Your task to perform on an android device: open app "Viber Messenger" (install if not already installed) Image 0: 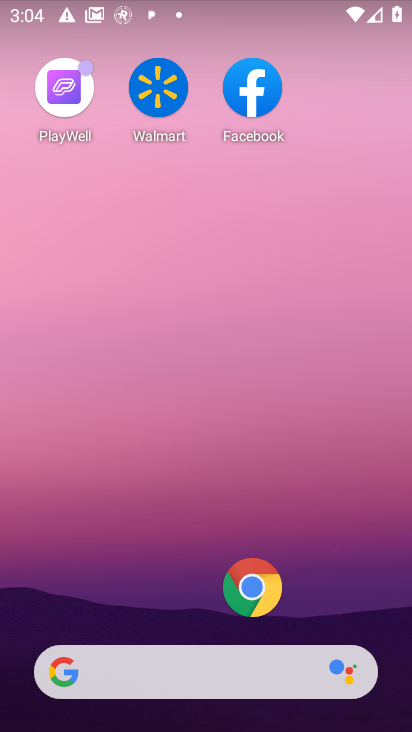
Step 0: drag from (161, 603) to (179, 228)
Your task to perform on an android device: open app "Viber Messenger" (install if not already installed) Image 1: 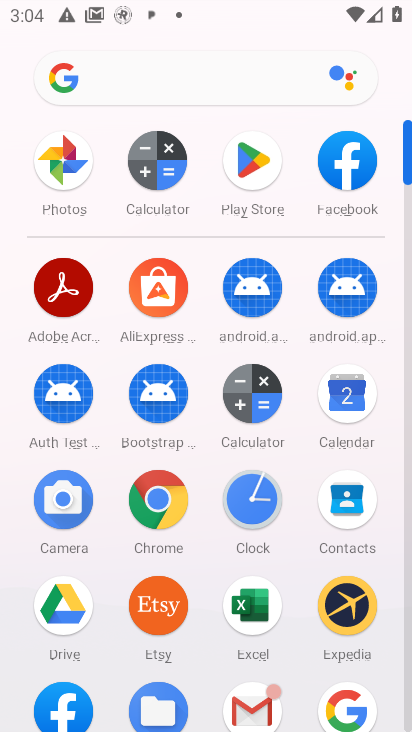
Step 1: click (245, 184)
Your task to perform on an android device: open app "Viber Messenger" (install if not already installed) Image 2: 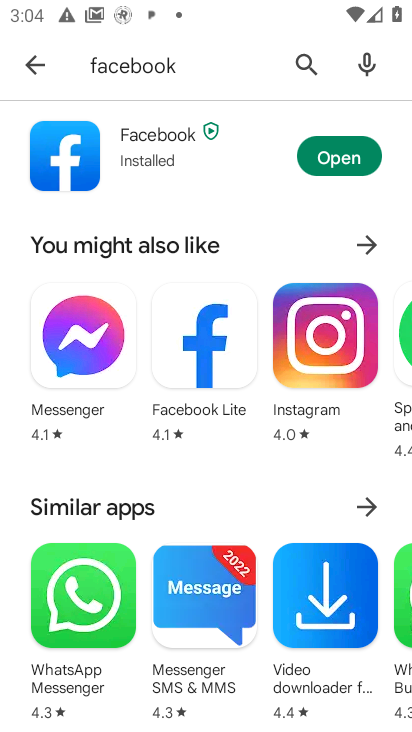
Step 2: click (313, 64)
Your task to perform on an android device: open app "Viber Messenger" (install if not already installed) Image 3: 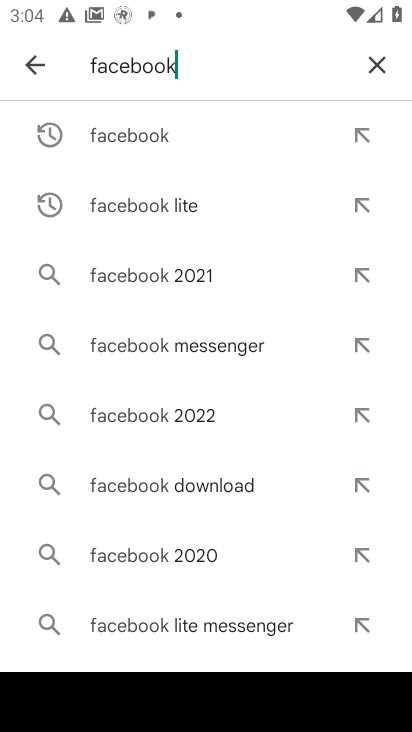
Step 3: drag from (313, 64) to (366, 64)
Your task to perform on an android device: open app "Viber Messenger" (install if not already installed) Image 4: 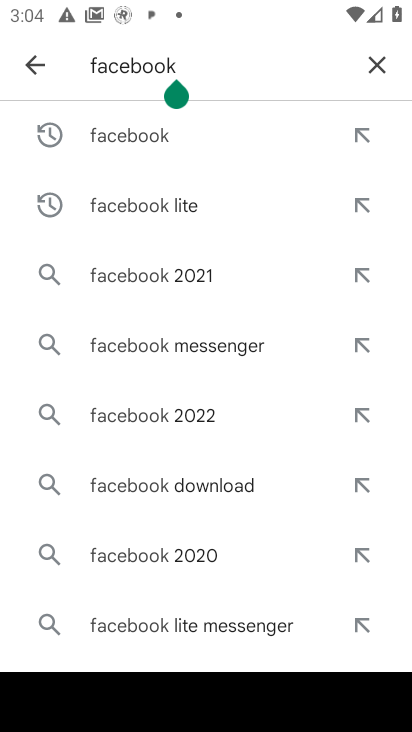
Step 4: click (383, 60)
Your task to perform on an android device: open app "Viber Messenger" (install if not already installed) Image 5: 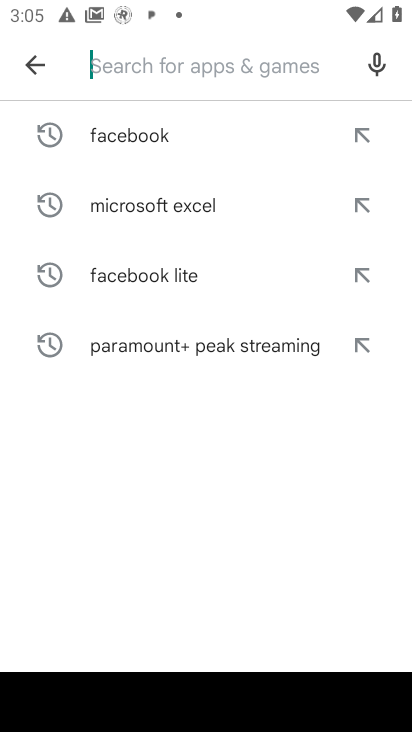
Step 5: type "Viber Messenger"
Your task to perform on an android device: open app "Viber Messenger" (install if not already installed) Image 6: 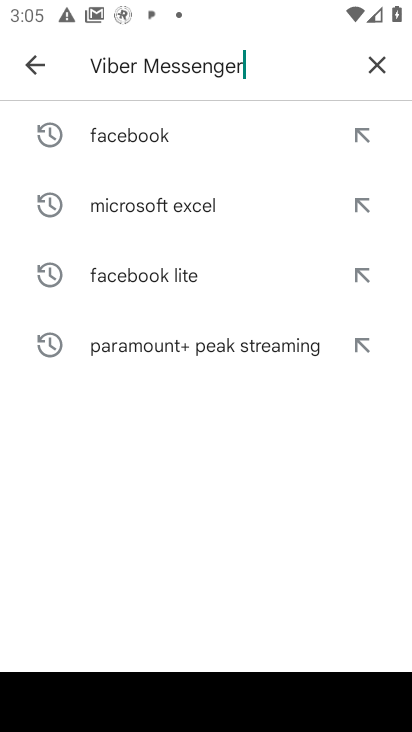
Step 6: type ""
Your task to perform on an android device: open app "Viber Messenger" (install if not already installed) Image 7: 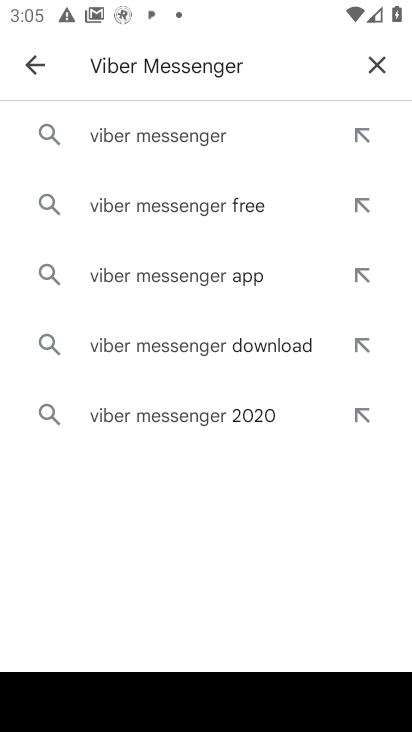
Step 7: click (159, 143)
Your task to perform on an android device: open app "Viber Messenger" (install if not already installed) Image 8: 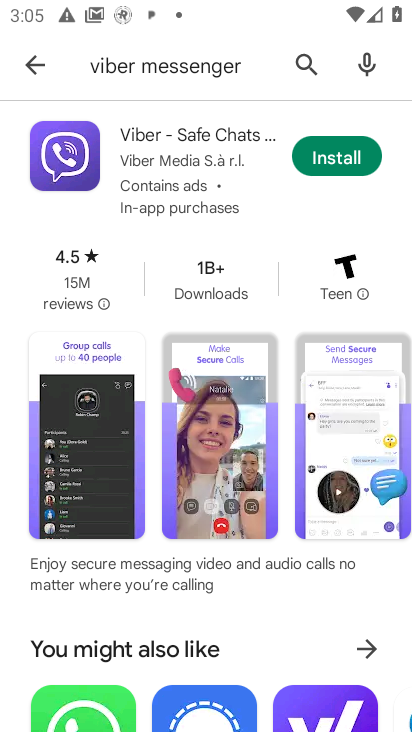
Step 8: click (303, 160)
Your task to perform on an android device: open app "Viber Messenger" (install if not already installed) Image 9: 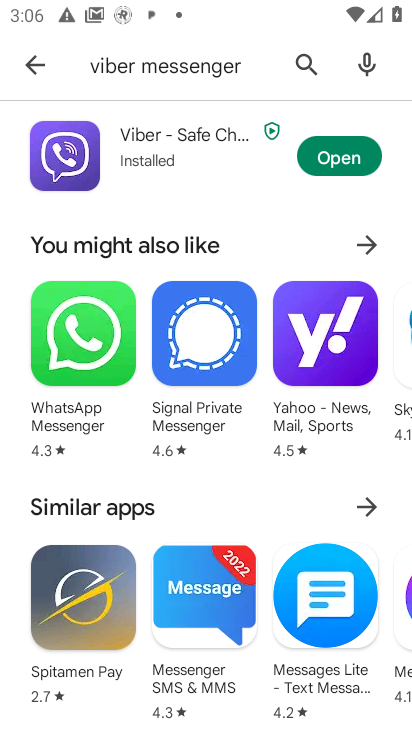
Step 9: click (345, 145)
Your task to perform on an android device: open app "Viber Messenger" (install if not already installed) Image 10: 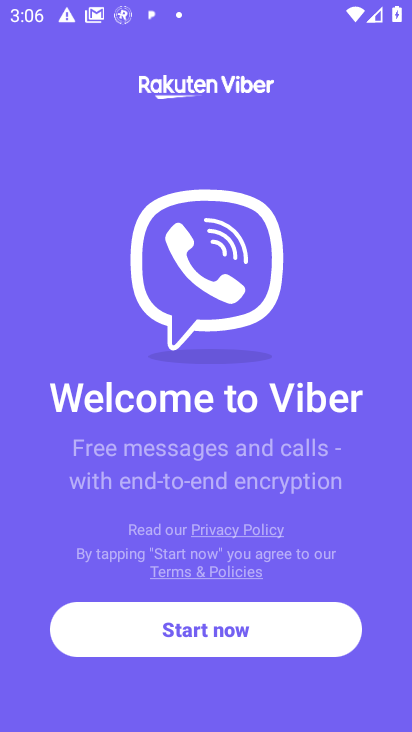
Step 10: task complete